Your task to perform on an android device: star an email in the gmail app Image 0: 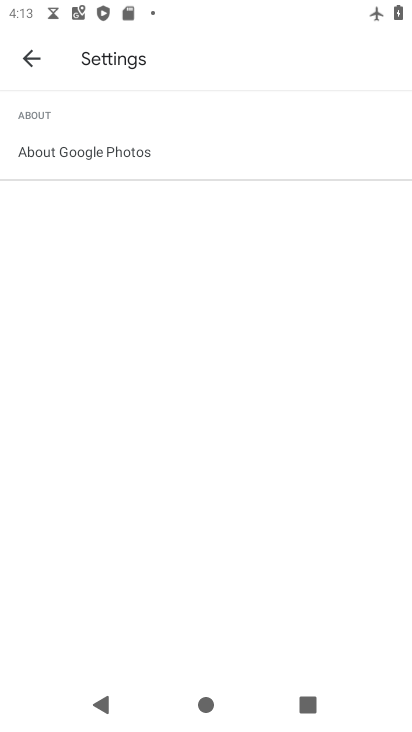
Step 0: press home button
Your task to perform on an android device: star an email in the gmail app Image 1: 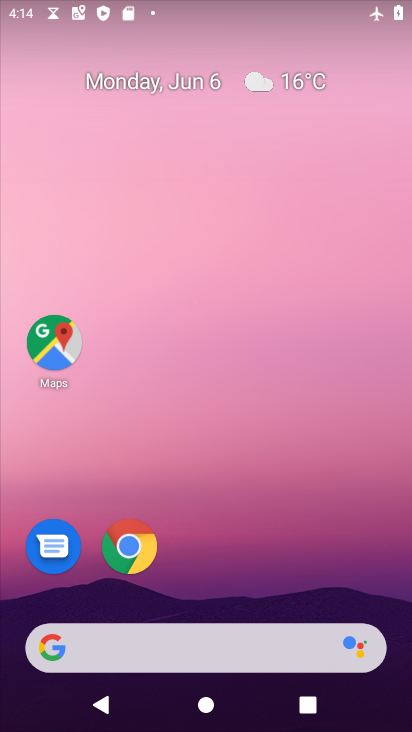
Step 1: drag from (324, 523) to (400, 0)
Your task to perform on an android device: star an email in the gmail app Image 2: 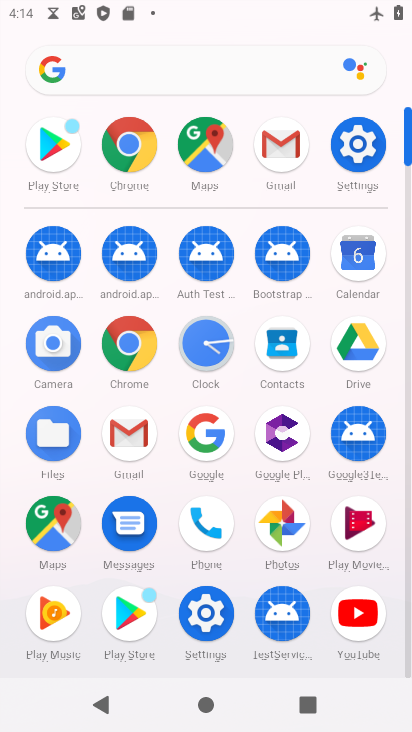
Step 2: click (276, 139)
Your task to perform on an android device: star an email in the gmail app Image 3: 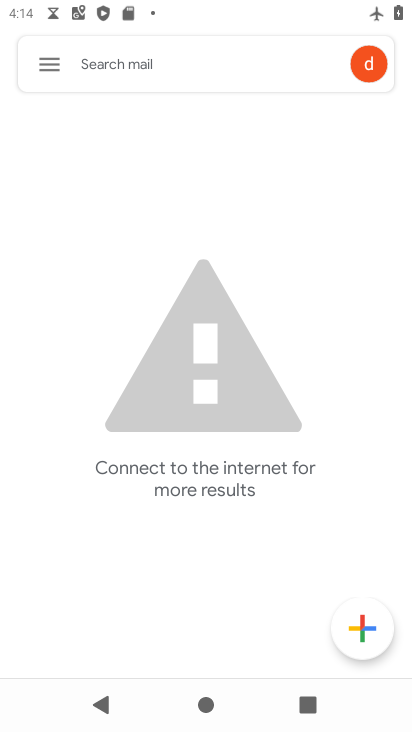
Step 3: task complete